Your task to perform on an android device: Open Yahoo.com Image 0: 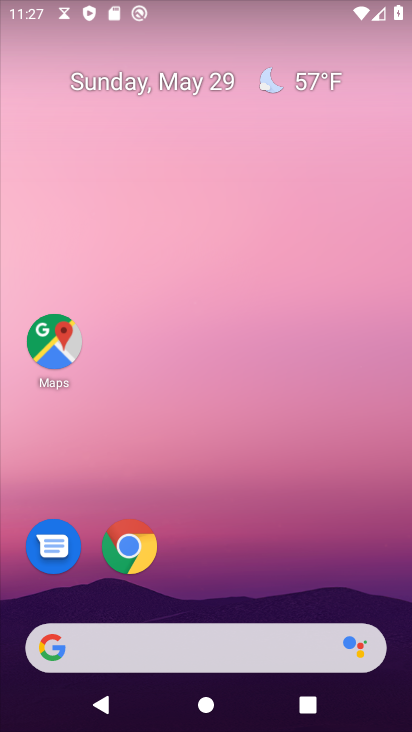
Step 0: press home button
Your task to perform on an android device: Open Yahoo.com Image 1: 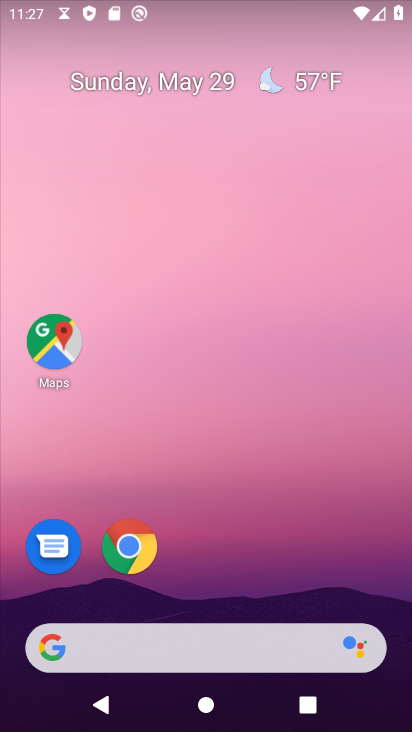
Step 1: click (121, 559)
Your task to perform on an android device: Open Yahoo.com Image 2: 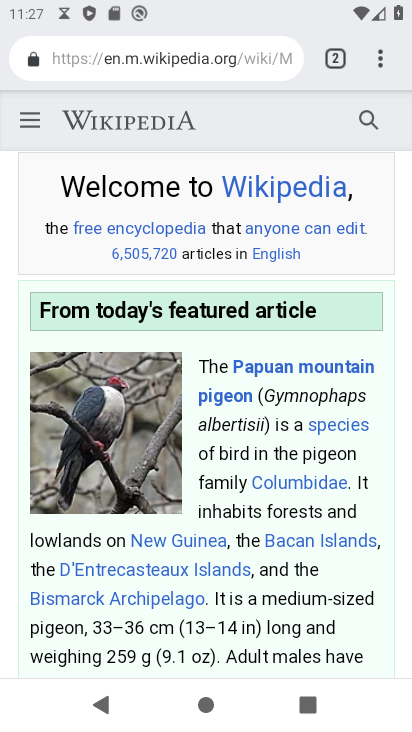
Step 2: drag from (379, 68) to (212, 120)
Your task to perform on an android device: Open Yahoo.com Image 3: 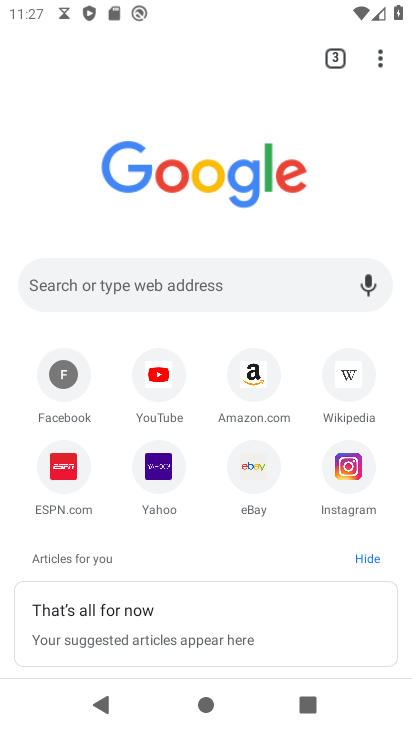
Step 3: click (149, 459)
Your task to perform on an android device: Open Yahoo.com Image 4: 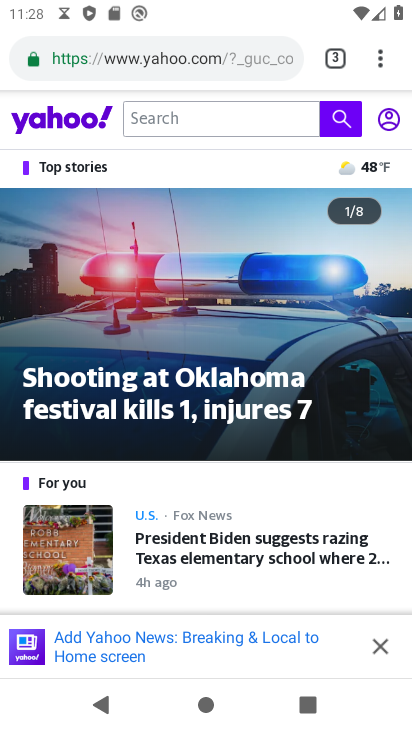
Step 4: task complete